Your task to perform on an android device: Open eBay Image 0: 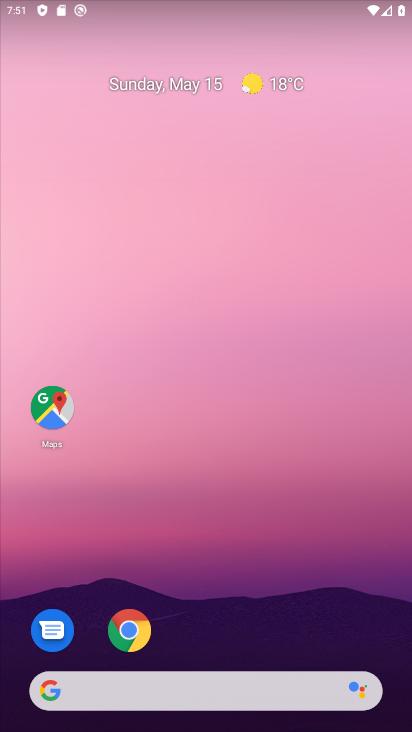
Step 0: drag from (199, 589) to (181, 9)
Your task to perform on an android device: Open eBay Image 1: 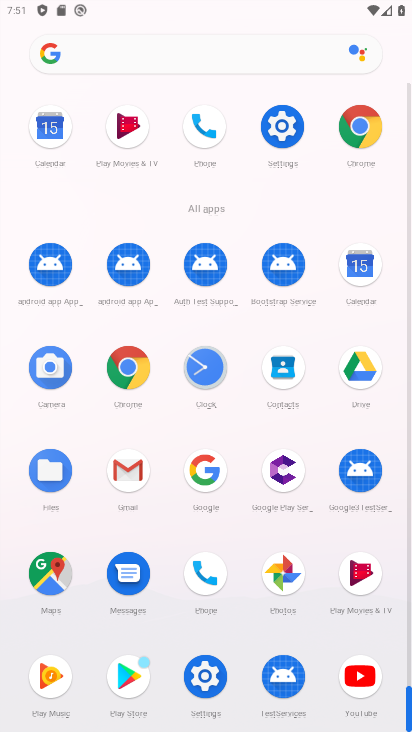
Step 1: click (127, 57)
Your task to perform on an android device: Open eBay Image 2: 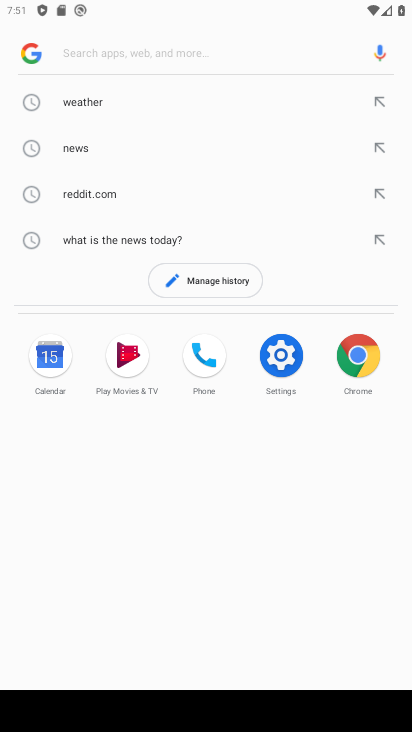
Step 2: type "ebay"
Your task to perform on an android device: Open eBay Image 3: 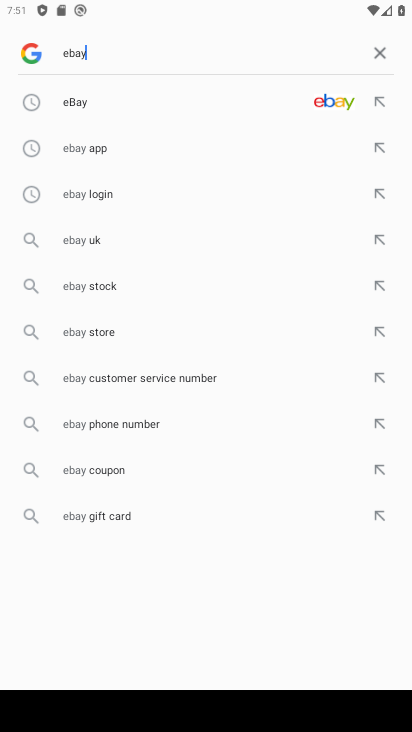
Step 3: click (191, 91)
Your task to perform on an android device: Open eBay Image 4: 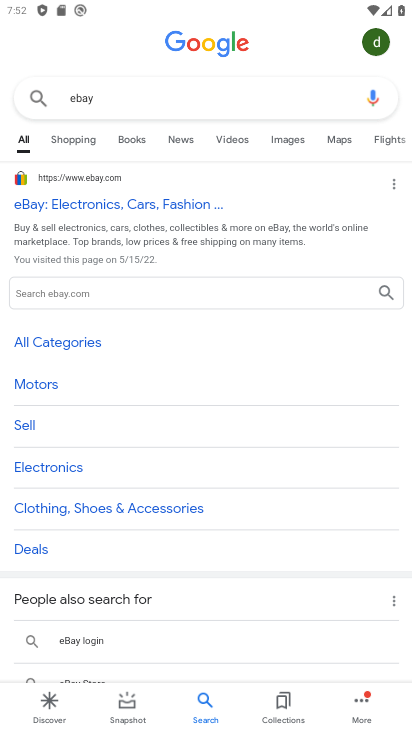
Step 4: drag from (212, 621) to (215, 378)
Your task to perform on an android device: Open eBay Image 5: 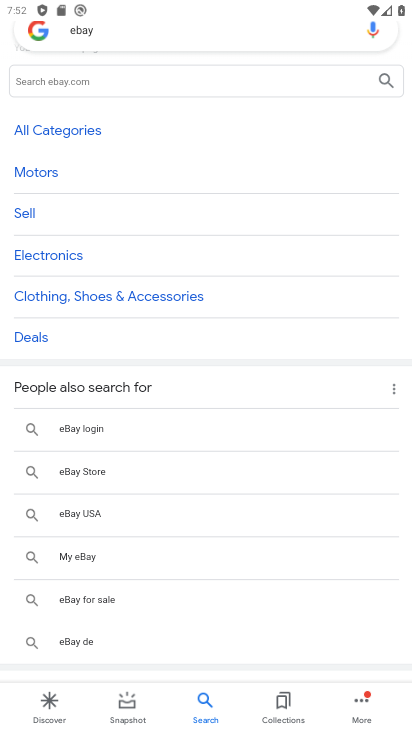
Step 5: drag from (216, 370) to (272, 626)
Your task to perform on an android device: Open eBay Image 6: 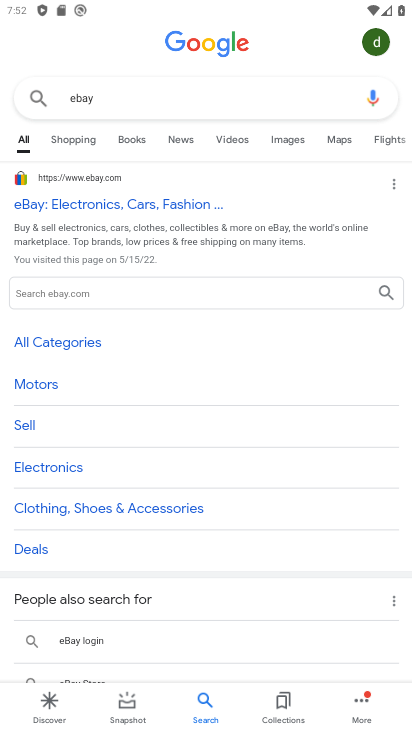
Step 6: click (71, 197)
Your task to perform on an android device: Open eBay Image 7: 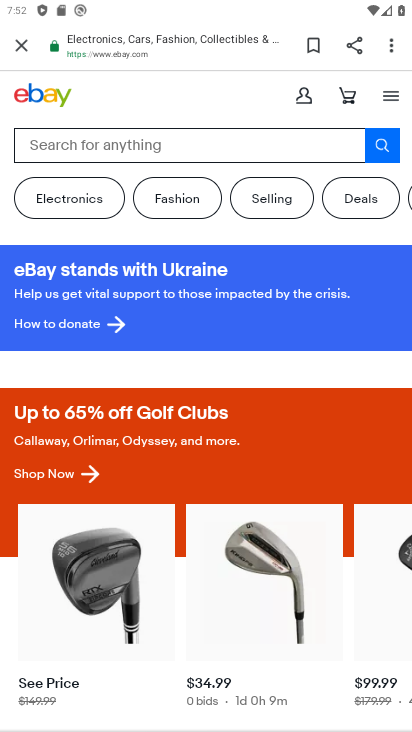
Step 7: task complete